Your task to perform on an android device: Open privacy settings Image 0: 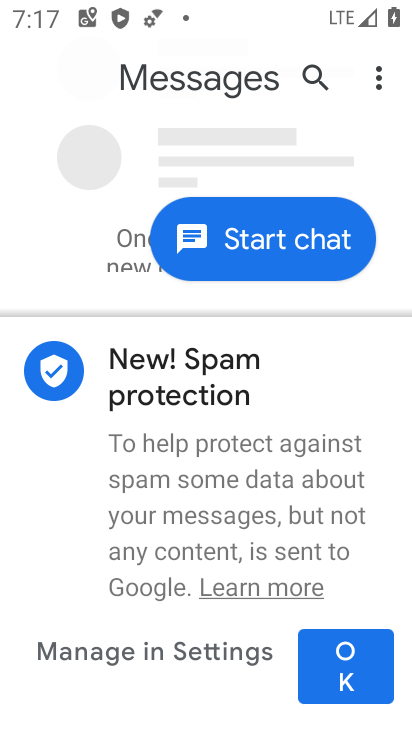
Step 0: press back button
Your task to perform on an android device: Open privacy settings Image 1: 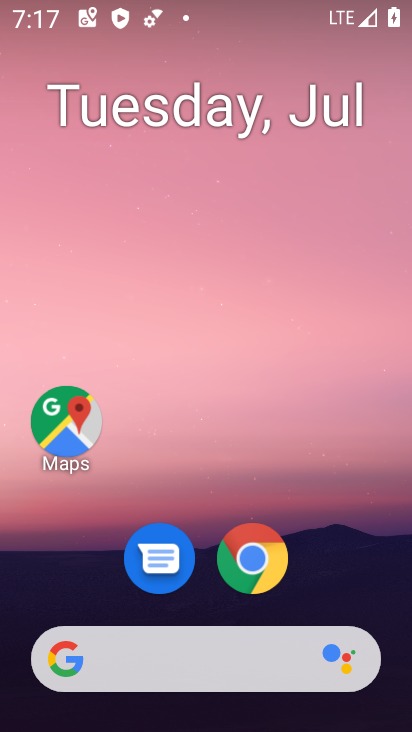
Step 1: drag from (75, 576) to (142, 21)
Your task to perform on an android device: Open privacy settings Image 2: 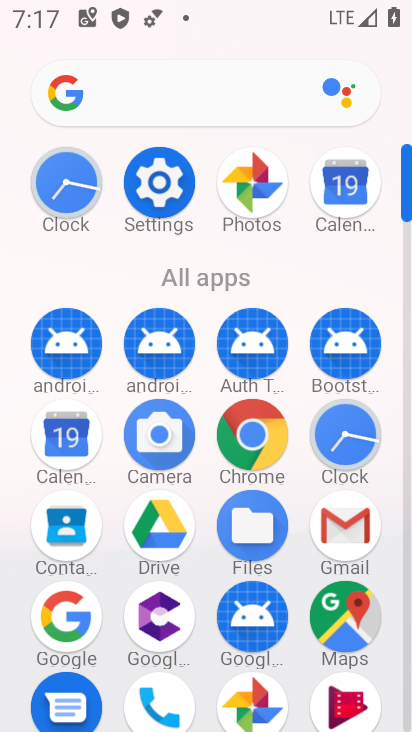
Step 2: click (167, 202)
Your task to perform on an android device: Open privacy settings Image 3: 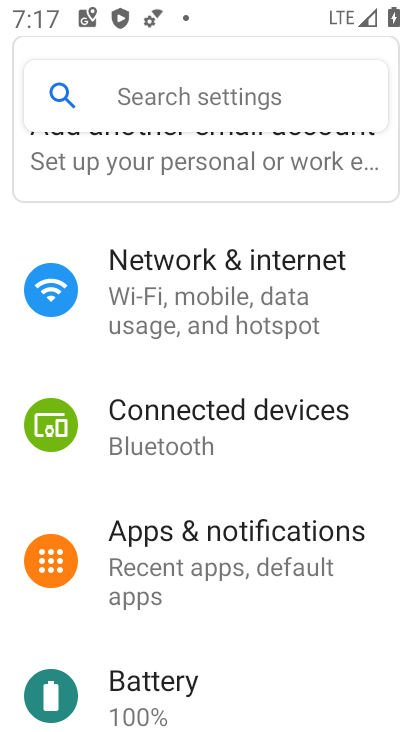
Step 3: drag from (306, 287) to (308, 238)
Your task to perform on an android device: Open privacy settings Image 4: 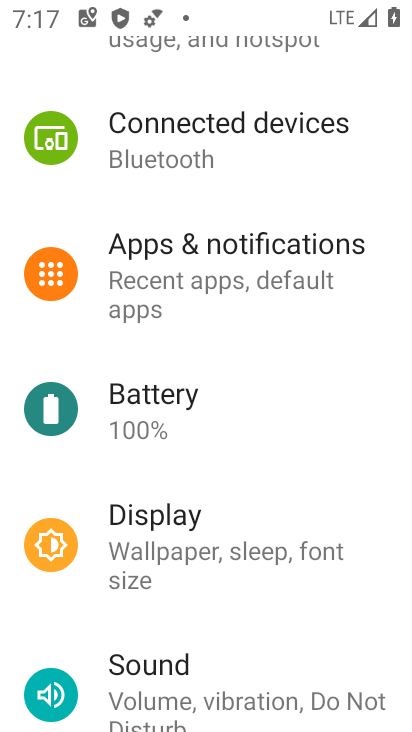
Step 4: drag from (264, 623) to (316, 96)
Your task to perform on an android device: Open privacy settings Image 5: 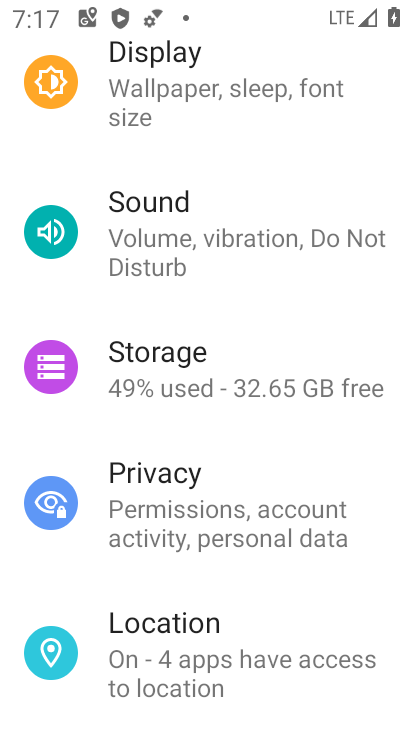
Step 5: click (164, 501)
Your task to perform on an android device: Open privacy settings Image 6: 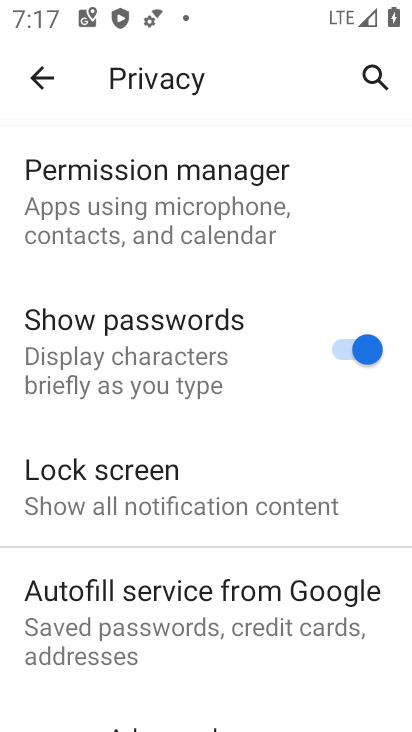
Step 6: task complete